Your task to perform on an android device: Show me recent news Image 0: 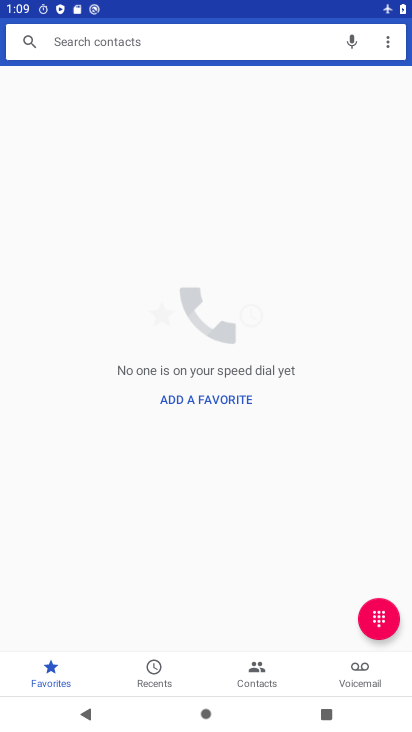
Step 0: press home button
Your task to perform on an android device: Show me recent news Image 1: 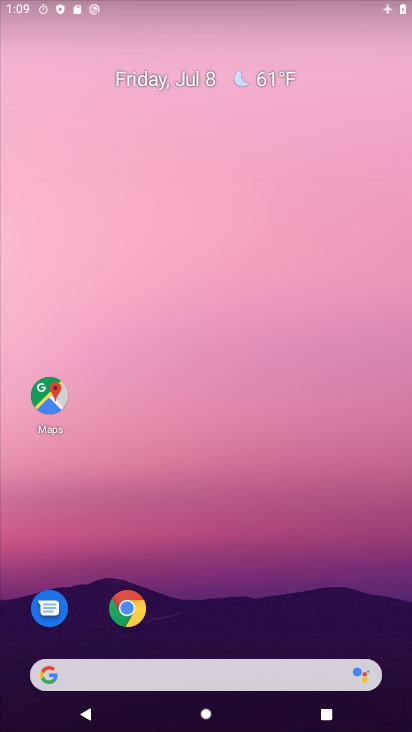
Step 1: drag from (171, 632) to (232, 103)
Your task to perform on an android device: Show me recent news Image 2: 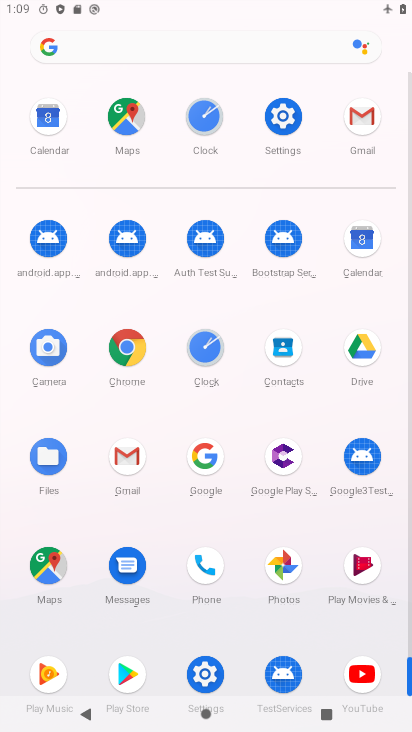
Step 2: click (212, 457)
Your task to perform on an android device: Show me recent news Image 3: 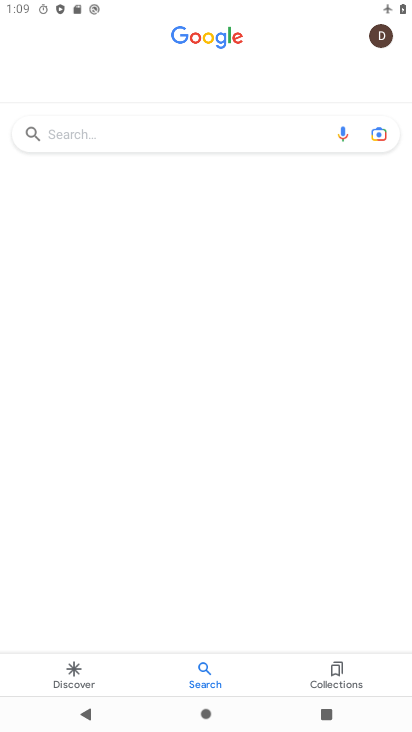
Step 3: click (177, 129)
Your task to perform on an android device: Show me recent news Image 4: 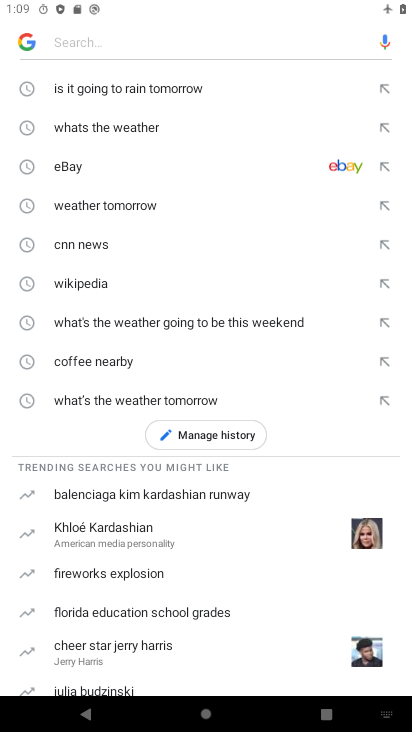
Step 4: type "recent news"
Your task to perform on an android device: Show me recent news Image 5: 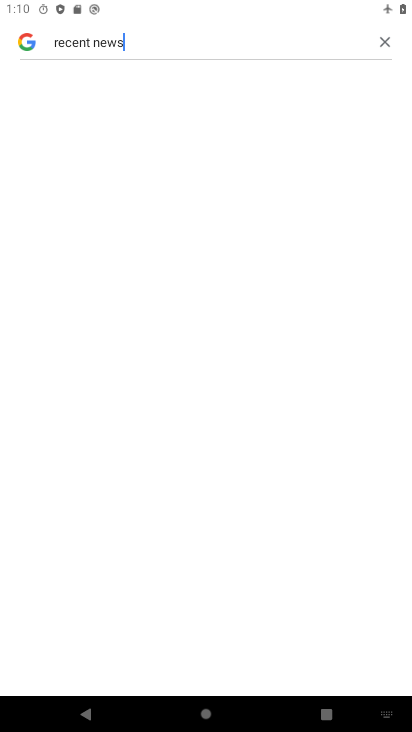
Step 5: task complete